Your task to perform on an android device: set the timer Image 0: 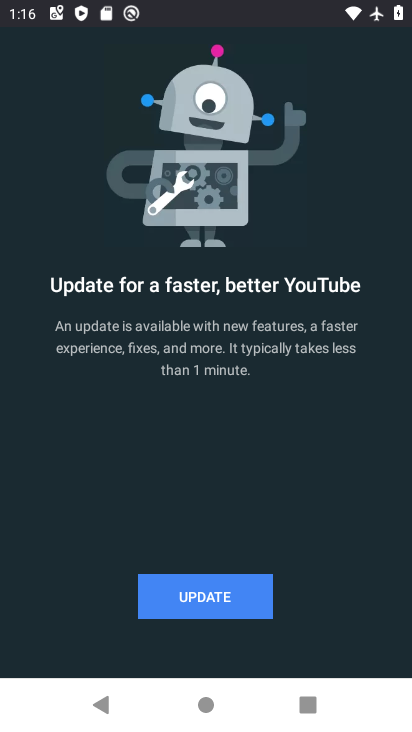
Step 0: press home button
Your task to perform on an android device: set the timer Image 1: 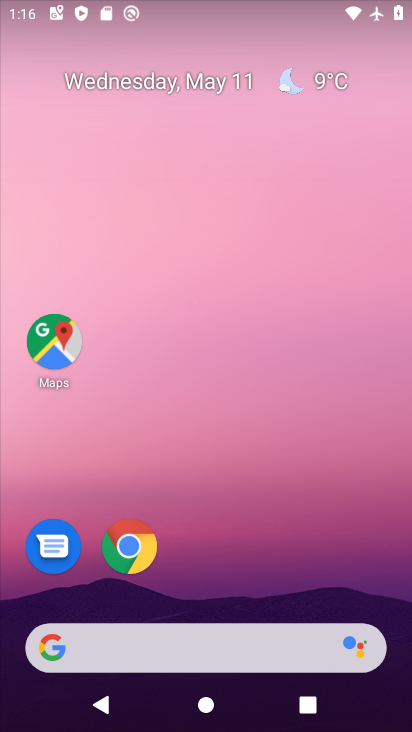
Step 1: drag from (208, 614) to (307, 2)
Your task to perform on an android device: set the timer Image 2: 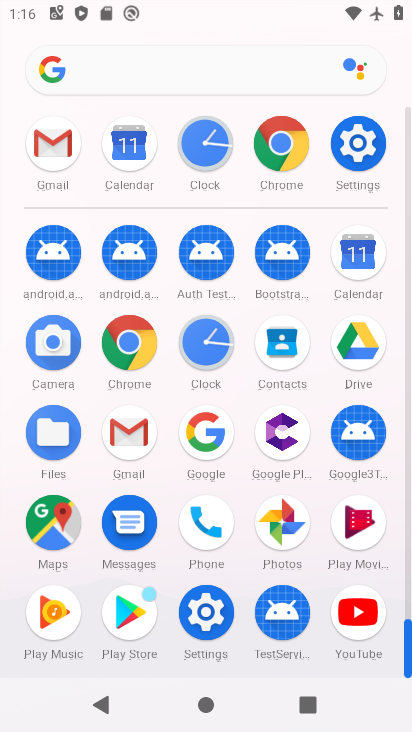
Step 2: click (196, 342)
Your task to perform on an android device: set the timer Image 3: 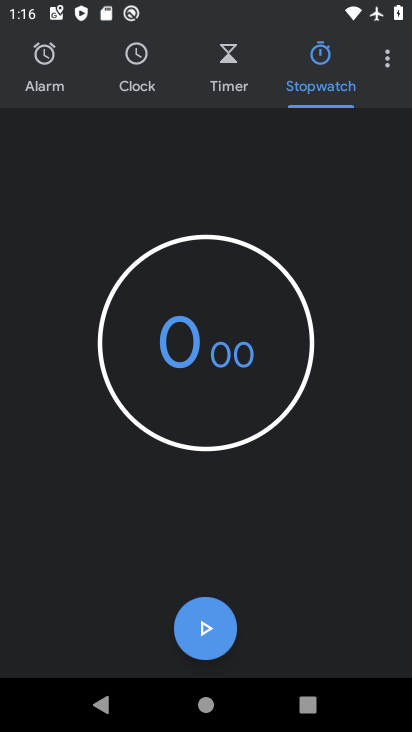
Step 3: click (227, 66)
Your task to perform on an android device: set the timer Image 4: 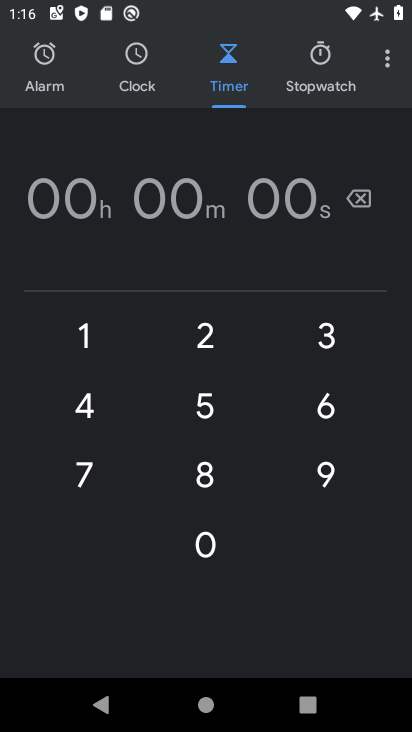
Step 4: click (210, 473)
Your task to perform on an android device: set the timer Image 5: 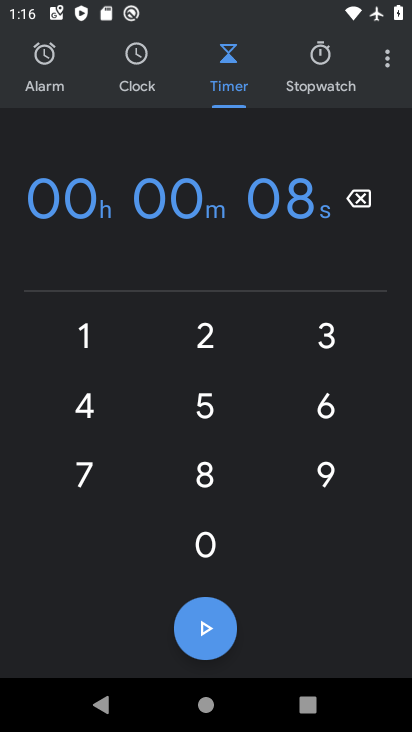
Step 5: click (319, 463)
Your task to perform on an android device: set the timer Image 6: 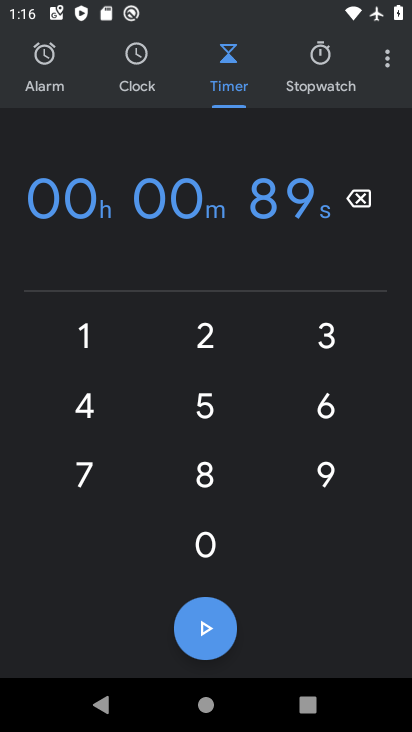
Step 6: click (199, 407)
Your task to perform on an android device: set the timer Image 7: 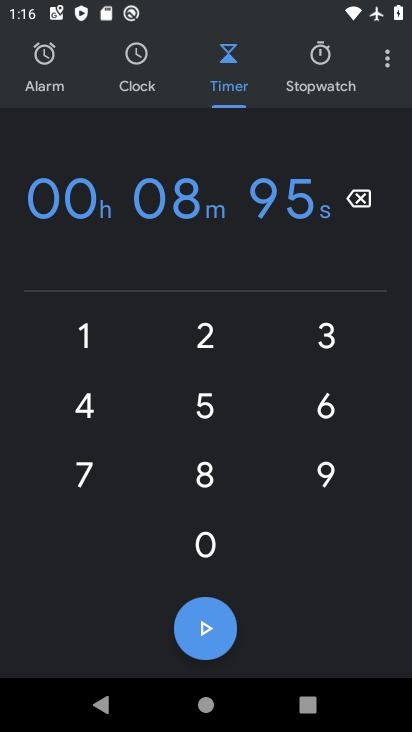
Step 7: click (306, 343)
Your task to perform on an android device: set the timer Image 8: 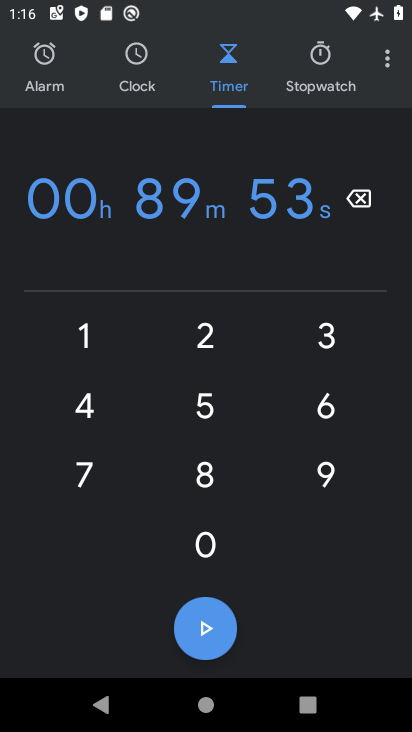
Step 8: click (317, 409)
Your task to perform on an android device: set the timer Image 9: 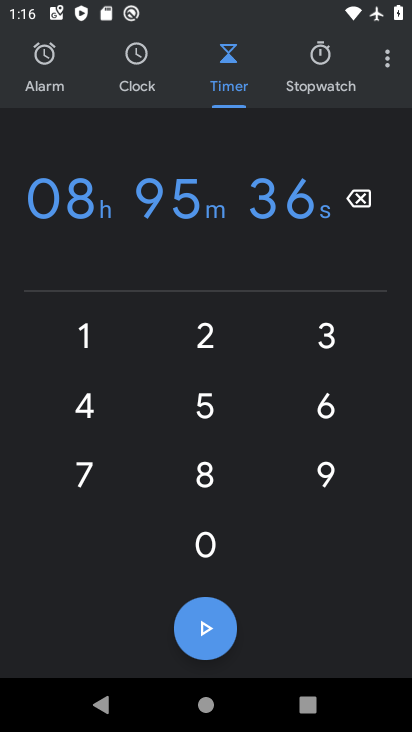
Step 9: click (209, 419)
Your task to perform on an android device: set the timer Image 10: 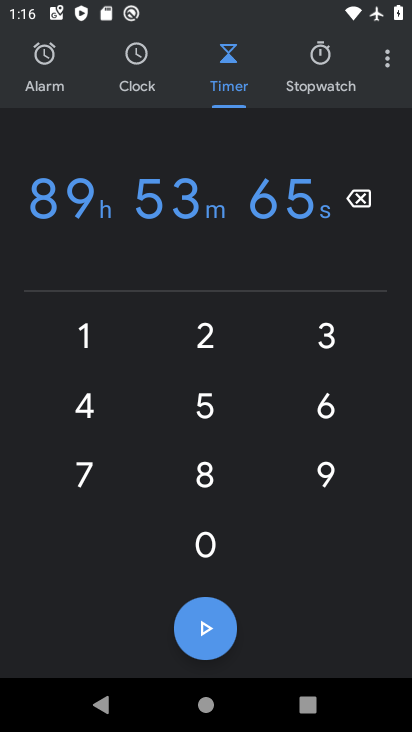
Step 10: click (207, 633)
Your task to perform on an android device: set the timer Image 11: 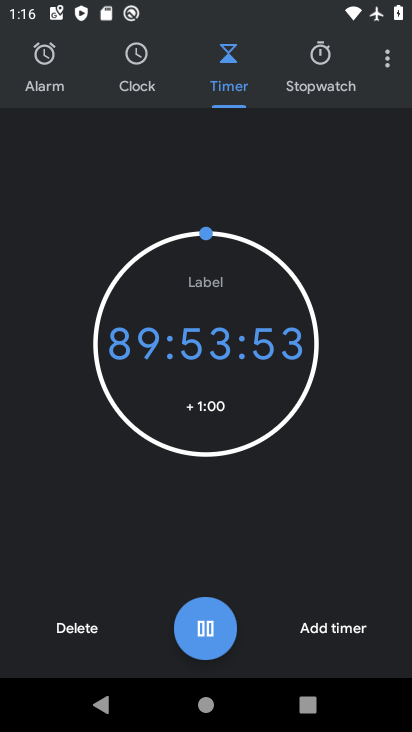
Step 11: task complete